Your task to perform on an android device: Search for seafood restaurants on Google Maps Image 0: 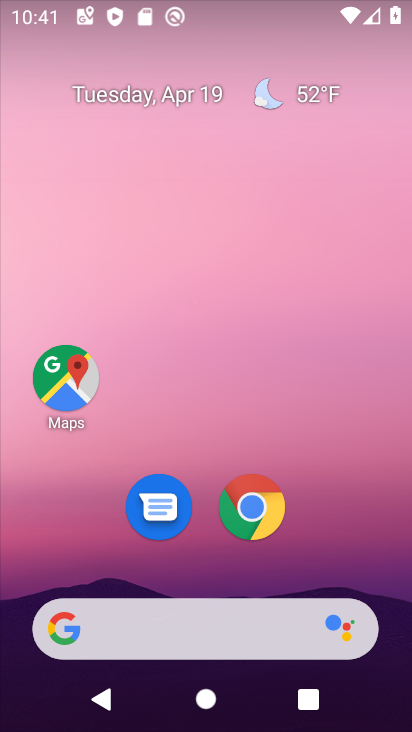
Step 0: drag from (351, 545) to (360, 61)
Your task to perform on an android device: Search for seafood restaurants on Google Maps Image 1: 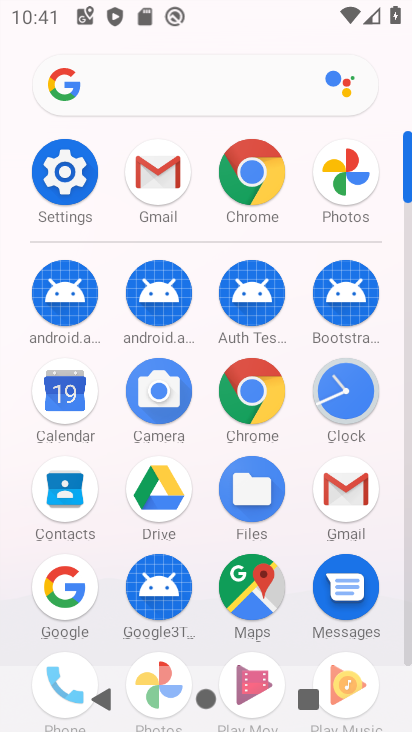
Step 1: click (256, 595)
Your task to perform on an android device: Search for seafood restaurants on Google Maps Image 2: 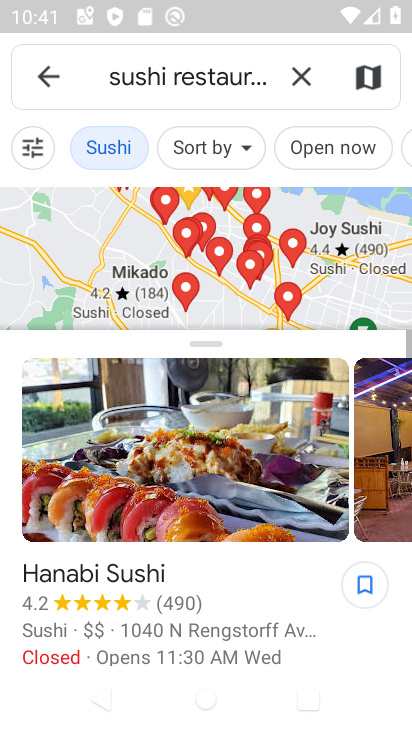
Step 2: click (267, 62)
Your task to perform on an android device: Search for seafood restaurants on Google Maps Image 3: 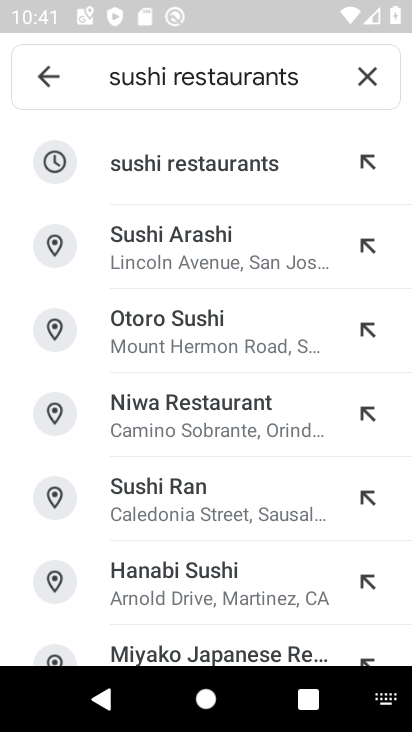
Step 3: click (369, 72)
Your task to perform on an android device: Search for seafood restaurants on Google Maps Image 4: 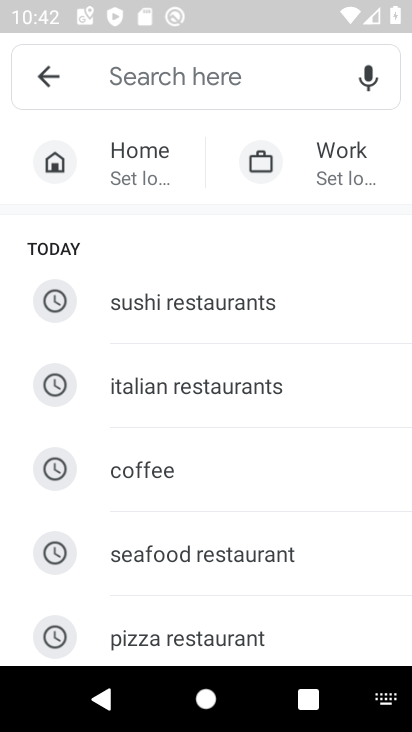
Step 4: type "seafood restaurants"
Your task to perform on an android device: Search for seafood restaurants on Google Maps Image 5: 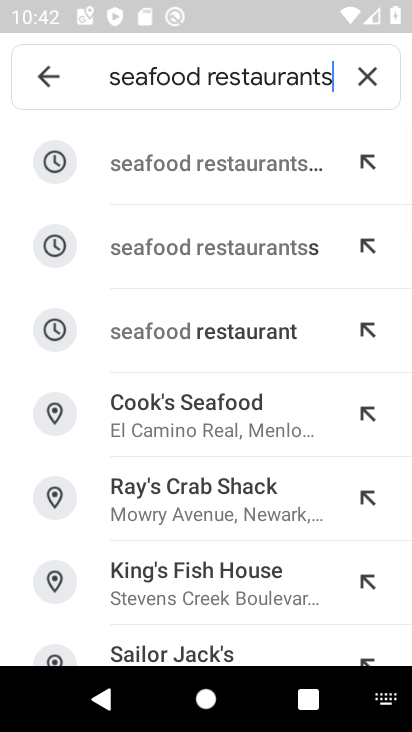
Step 5: click (263, 161)
Your task to perform on an android device: Search for seafood restaurants on Google Maps Image 6: 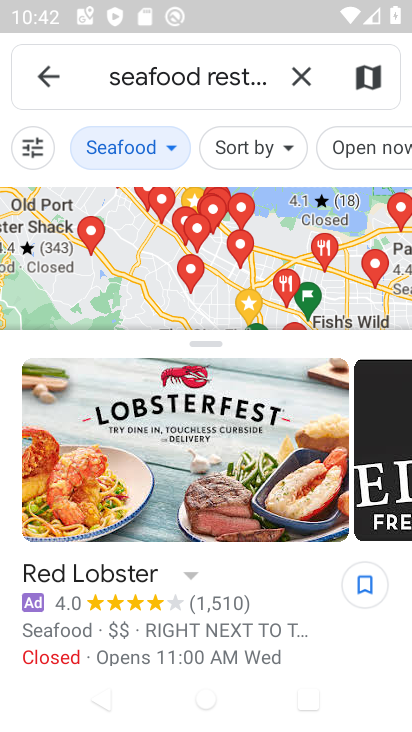
Step 6: task complete